Your task to perform on an android device: check out phone information Image 0: 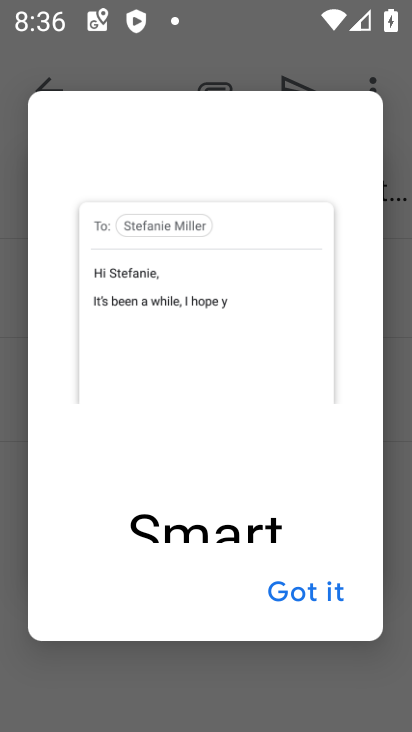
Step 0: press home button
Your task to perform on an android device: check out phone information Image 1: 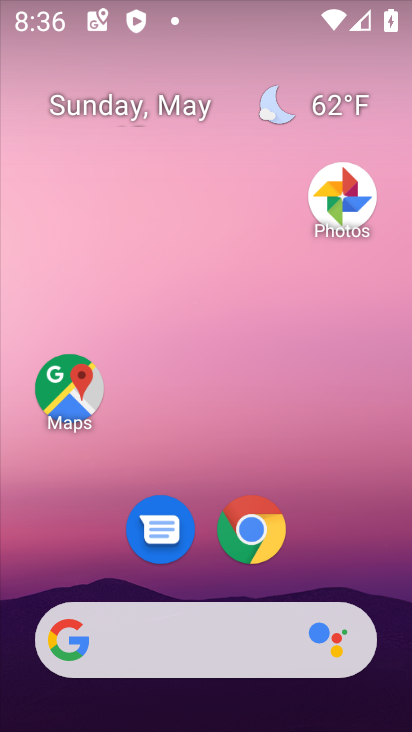
Step 1: drag from (370, 555) to (387, 102)
Your task to perform on an android device: check out phone information Image 2: 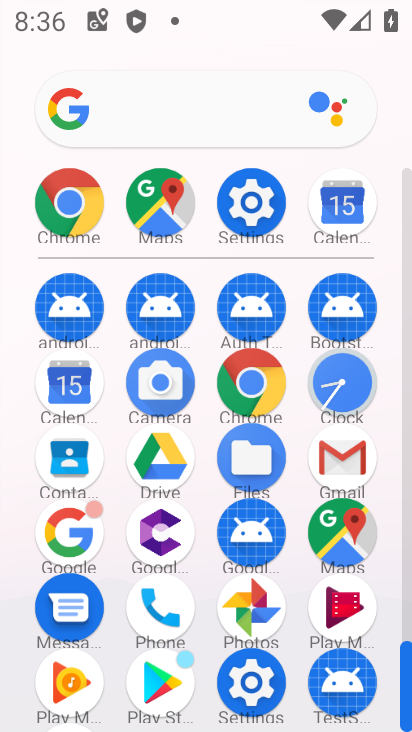
Step 2: click (258, 702)
Your task to perform on an android device: check out phone information Image 3: 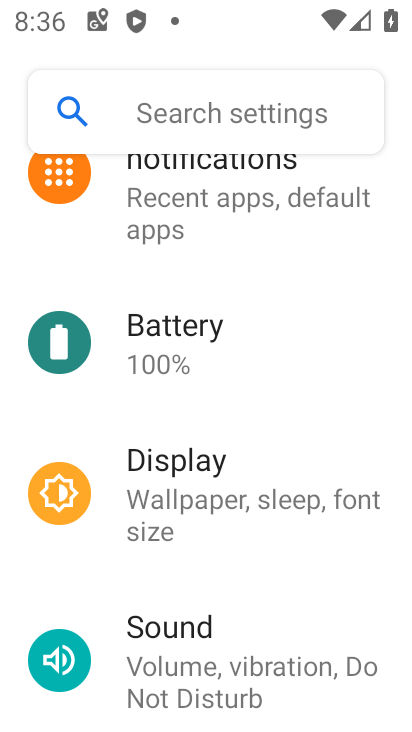
Step 3: task complete